Your task to perform on an android device: Show the shopping cart on costco. Add razer deathadder to the cart on costco, then select checkout. Image 0: 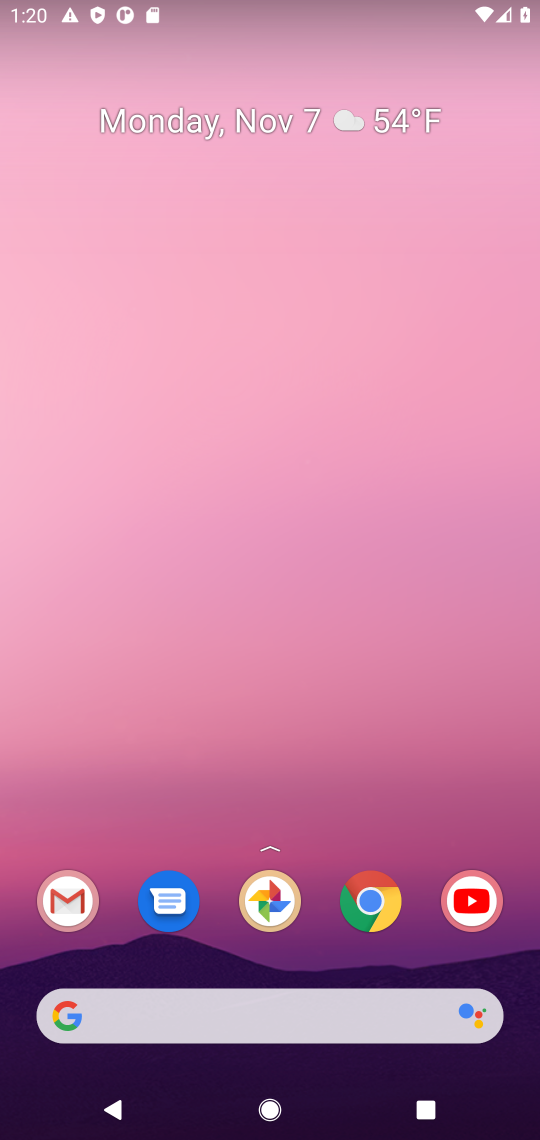
Step 0: click (370, 911)
Your task to perform on an android device: Show the shopping cart on costco. Add razer deathadder to the cart on costco, then select checkout. Image 1: 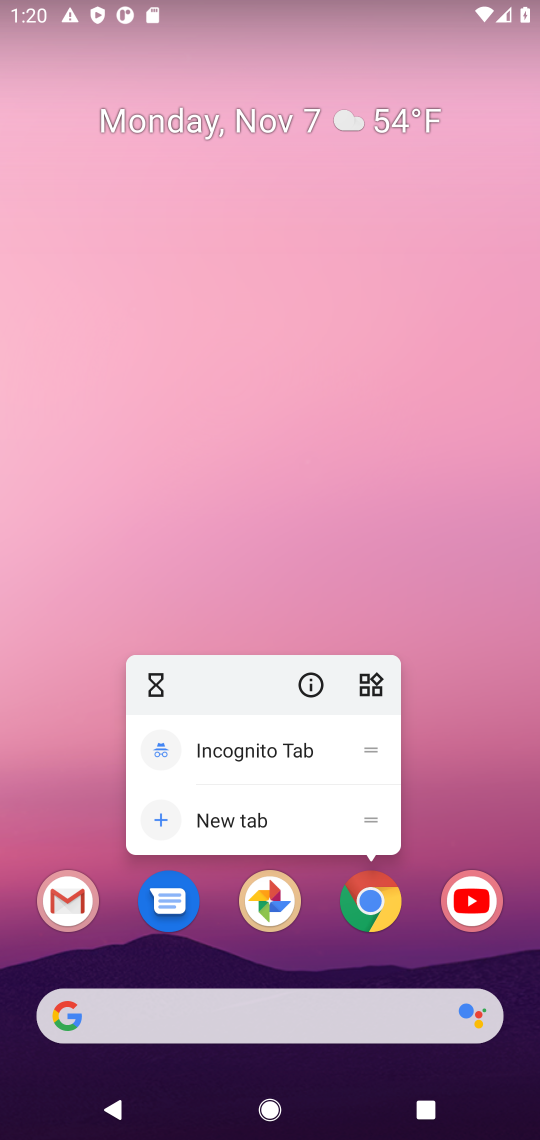
Step 1: click (371, 901)
Your task to perform on an android device: Show the shopping cart on costco. Add razer deathadder to the cart on costco, then select checkout. Image 2: 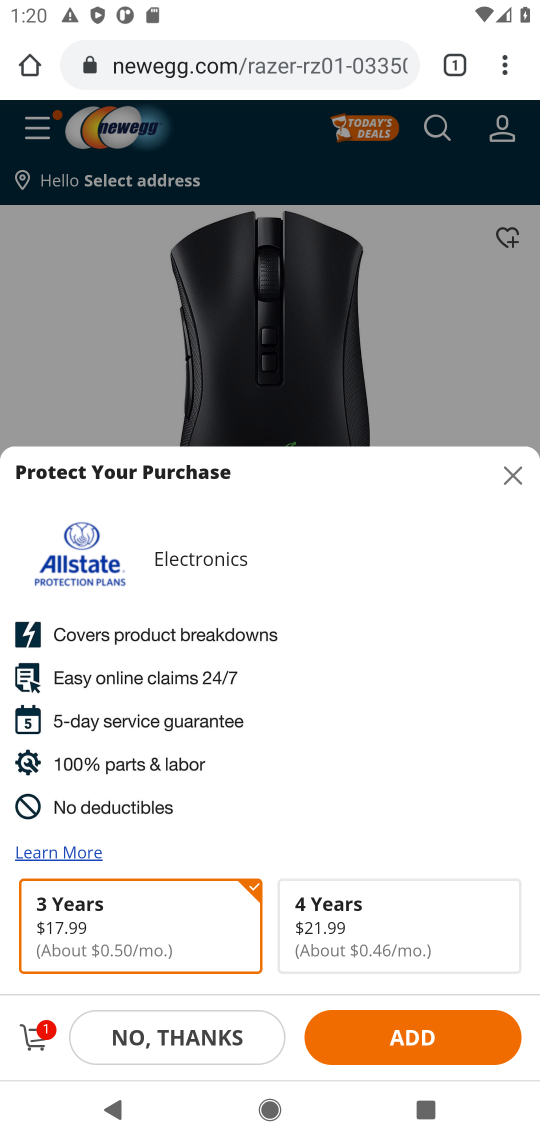
Step 2: click (212, 68)
Your task to perform on an android device: Show the shopping cart on costco. Add razer deathadder to the cart on costco, then select checkout. Image 3: 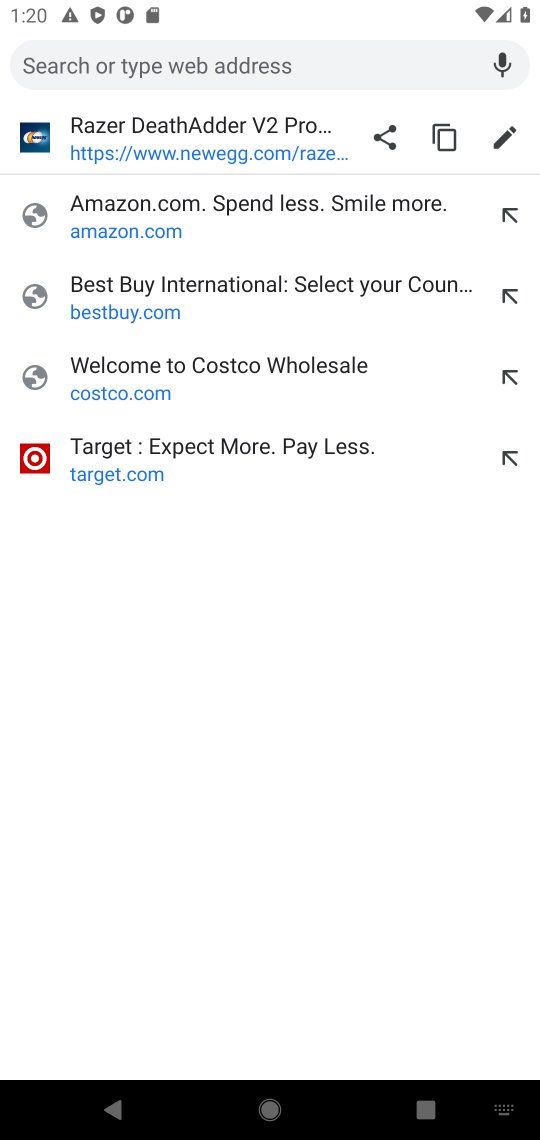
Step 3: click (128, 396)
Your task to perform on an android device: Show the shopping cart on costco. Add razer deathadder to the cart on costco, then select checkout. Image 4: 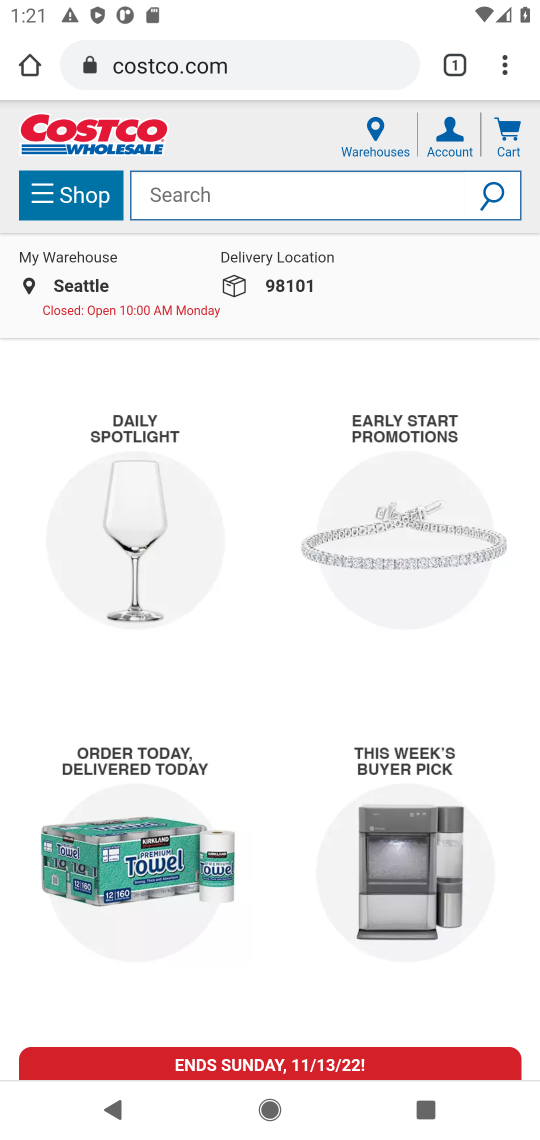
Step 4: click (500, 138)
Your task to perform on an android device: Show the shopping cart on costco. Add razer deathadder to the cart on costco, then select checkout. Image 5: 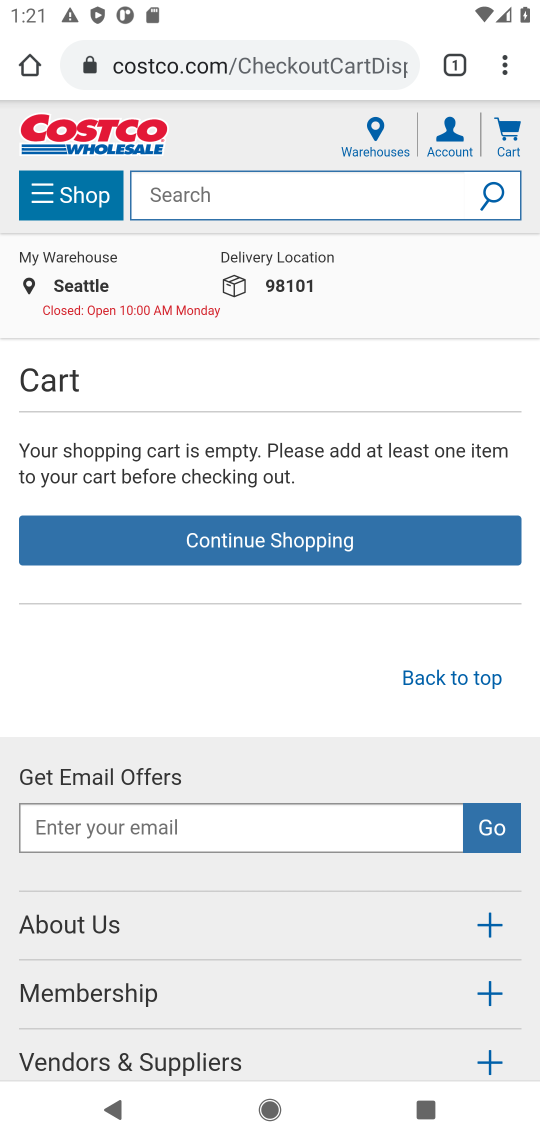
Step 5: click (301, 196)
Your task to perform on an android device: Show the shopping cart on costco. Add razer deathadder to the cart on costco, then select checkout. Image 6: 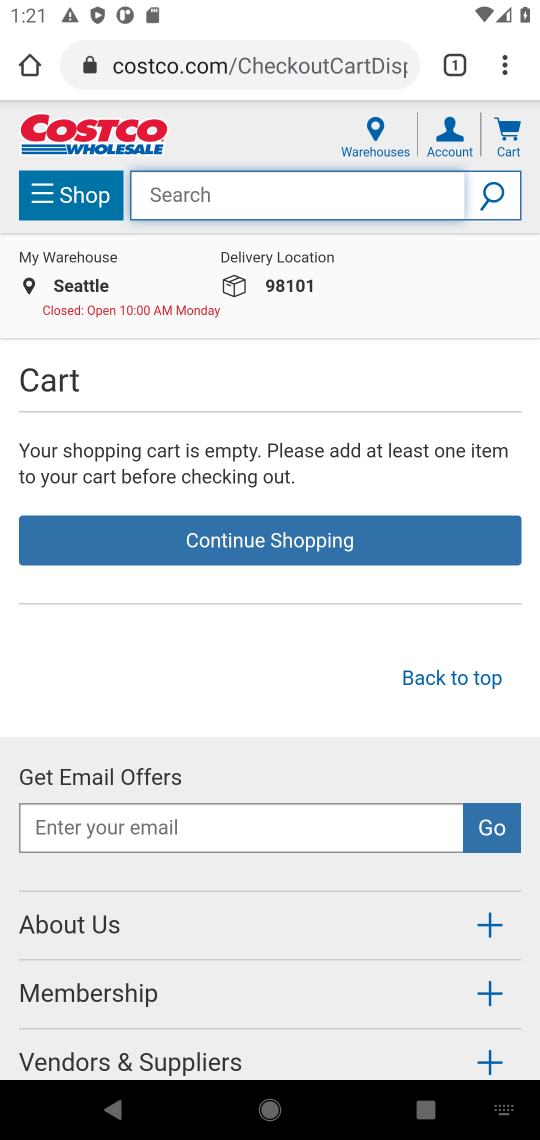
Step 6: type "razer deathadder"
Your task to perform on an android device: Show the shopping cart on costco. Add razer deathadder to the cart on costco, then select checkout. Image 7: 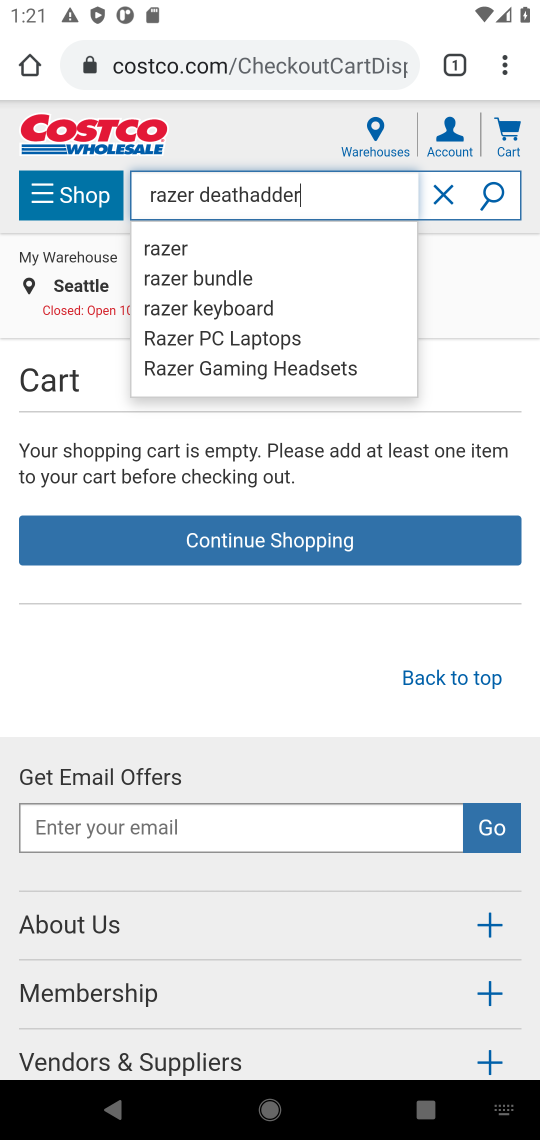
Step 7: click (498, 192)
Your task to perform on an android device: Show the shopping cart on costco. Add razer deathadder to the cart on costco, then select checkout. Image 8: 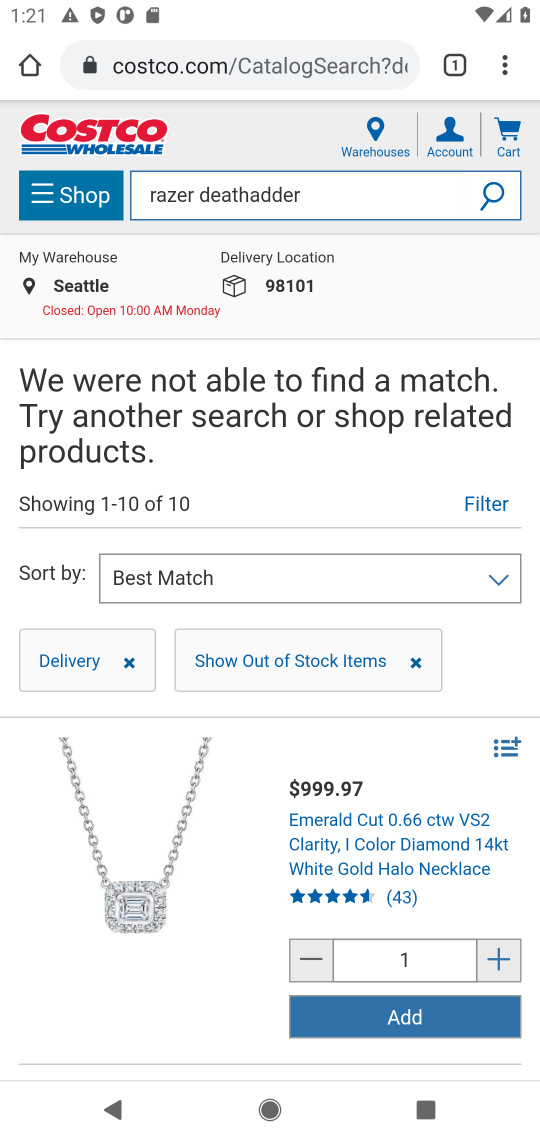
Step 8: task complete